Your task to perform on an android device: visit the assistant section in the google photos Image 0: 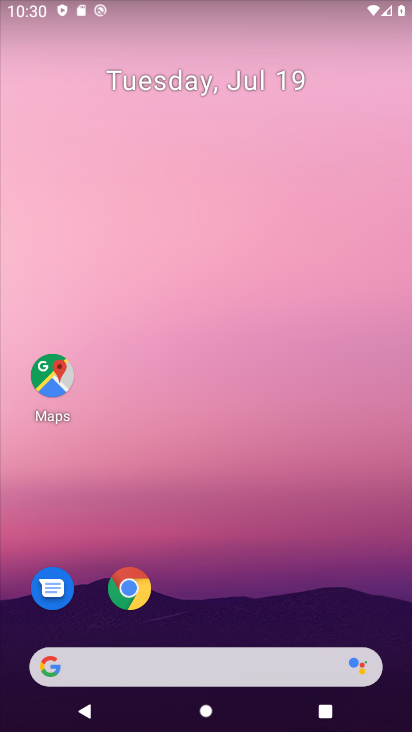
Step 0: drag from (392, 607) to (127, 69)
Your task to perform on an android device: visit the assistant section in the google photos Image 1: 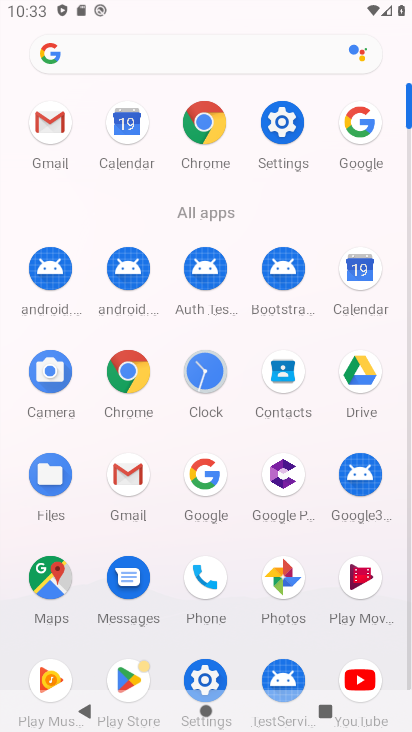
Step 1: click (264, 580)
Your task to perform on an android device: visit the assistant section in the google photos Image 2: 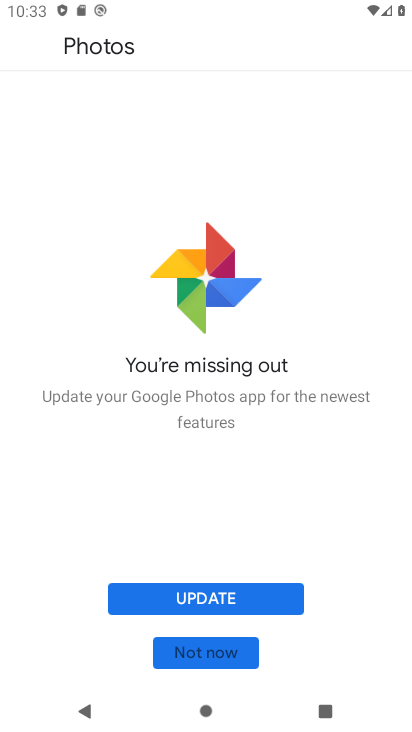
Step 2: click (251, 655)
Your task to perform on an android device: visit the assistant section in the google photos Image 3: 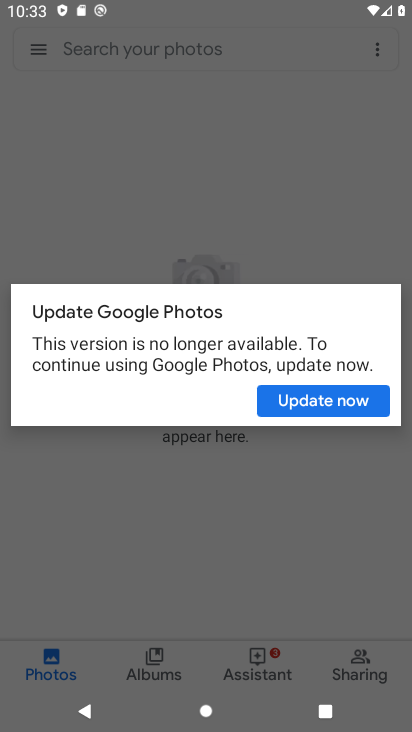
Step 3: click (245, 629)
Your task to perform on an android device: visit the assistant section in the google photos Image 4: 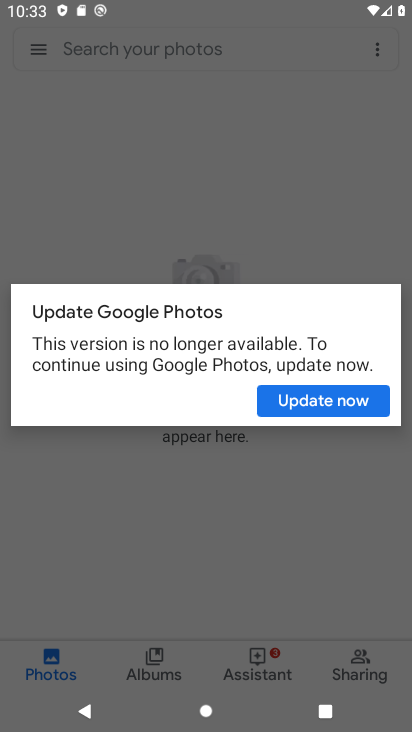
Step 4: click (330, 407)
Your task to perform on an android device: visit the assistant section in the google photos Image 5: 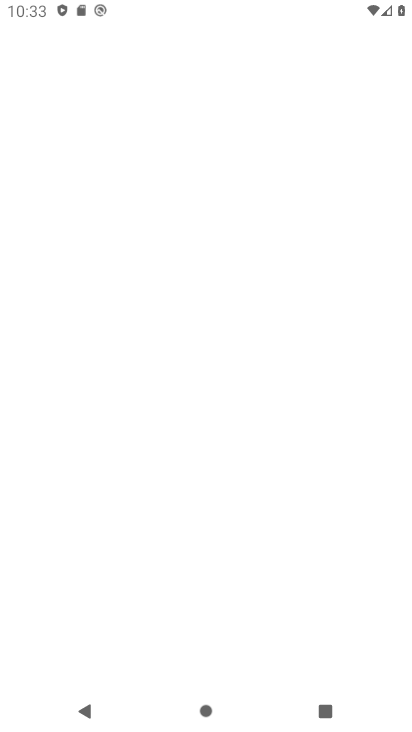
Step 5: task complete